Your task to perform on an android device: change keyboard looks Image 0: 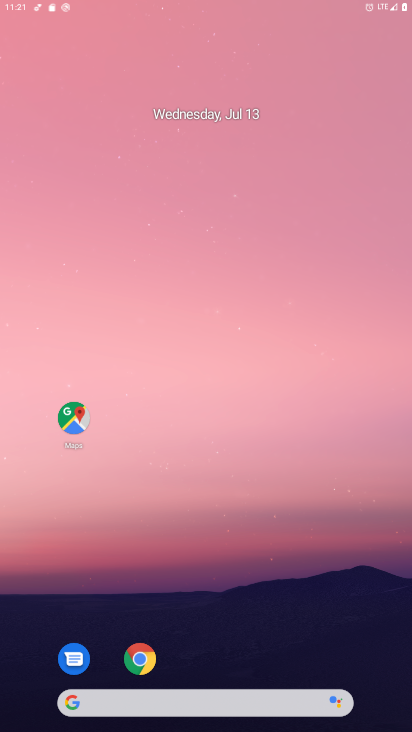
Step 0: press home button
Your task to perform on an android device: change keyboard looks Image 1: 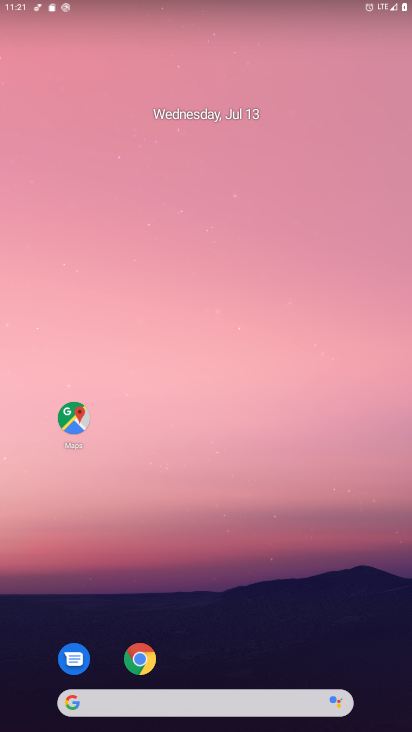
Step 1: drag from (227, 669) to (257, 1)
Your task to perform on an android device: change keyboard looks Image 2: 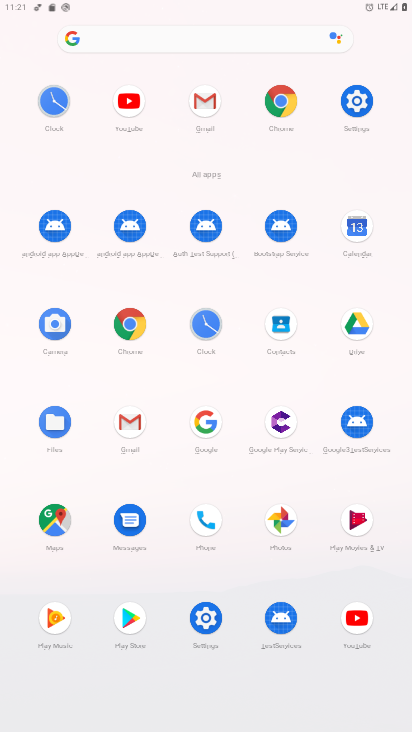
Step 2: click (357, 98)
Your task to perform on an android device: change keyboard looks Image 3: 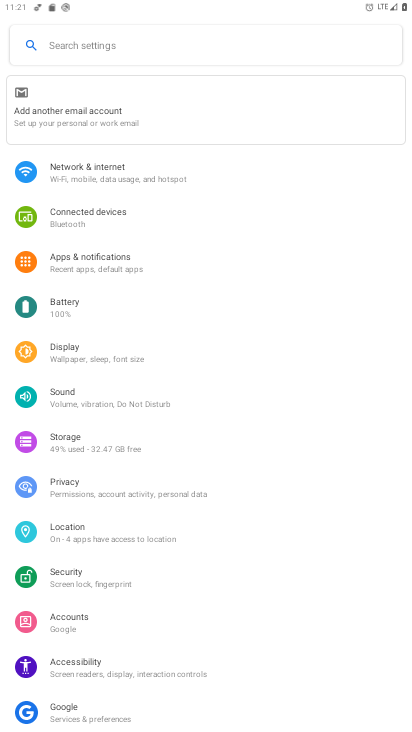
Step 3: drag from (119, 676) to (142, 96)
Your task to perform on an android device: change keyboard looks Image 4: 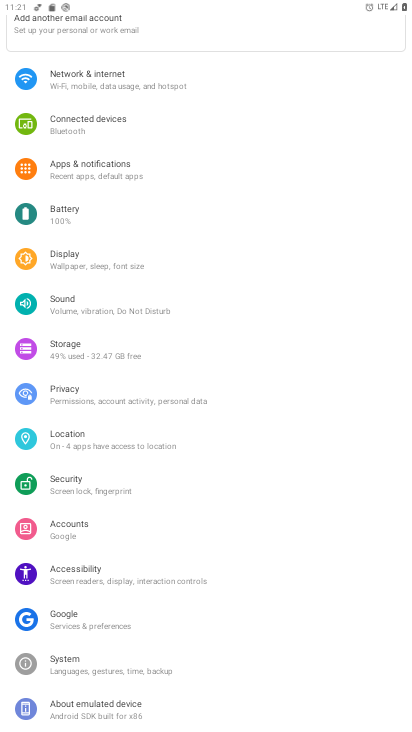
Step 4: click (96, 656)
Your task to perform on an android device: change keyboard looks Image 5: 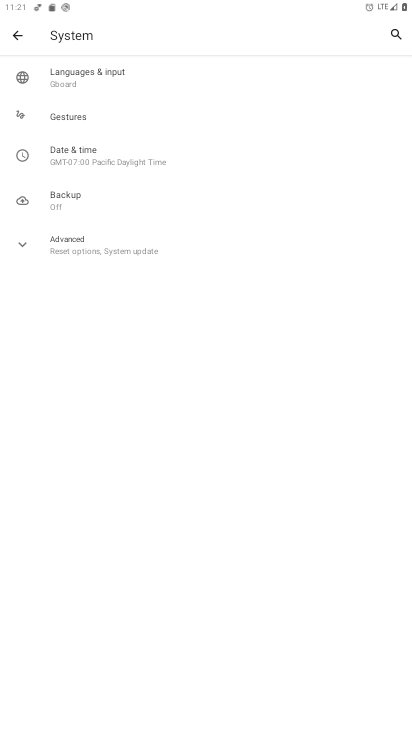
Step 5: click (21, 240)
Your task to perform on an android device: change keyboard looks Image 6: 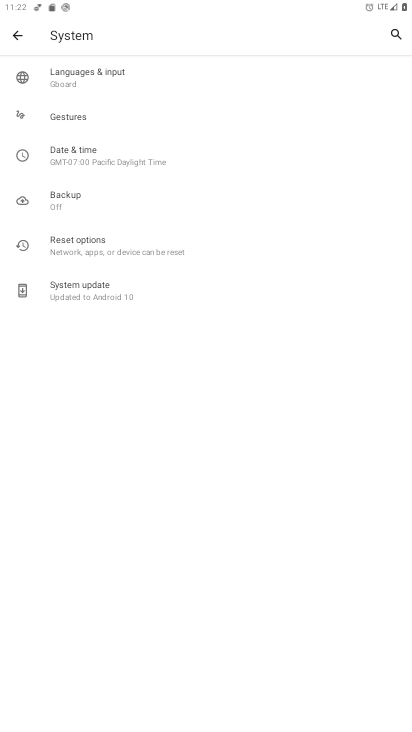
Step 6: click (92, 81)
Your task to perform on an android device: change keyboard looks Image 7: 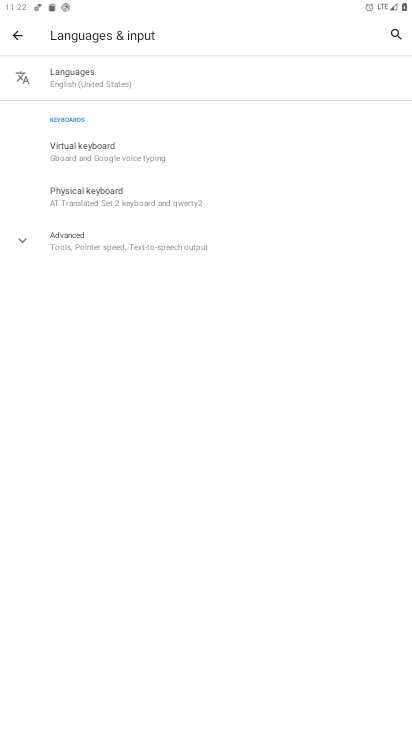
Step 7: click (24, 233)
Your task to perform on an android device: change keyboard looks Image 8: 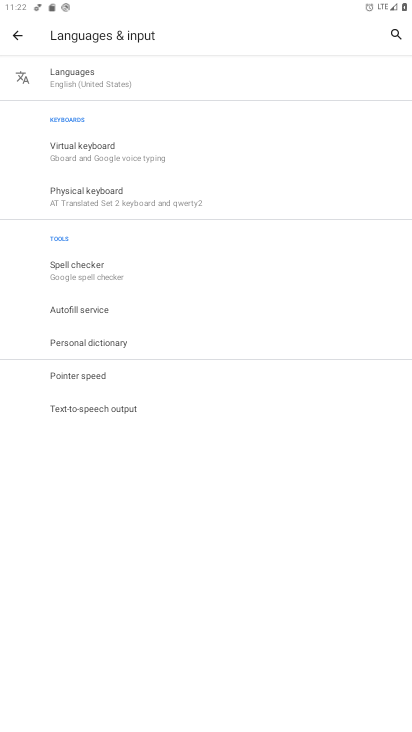
Step 8: click (106, 144)
Your task to perform on an android device: change keyboard looks Image 9: 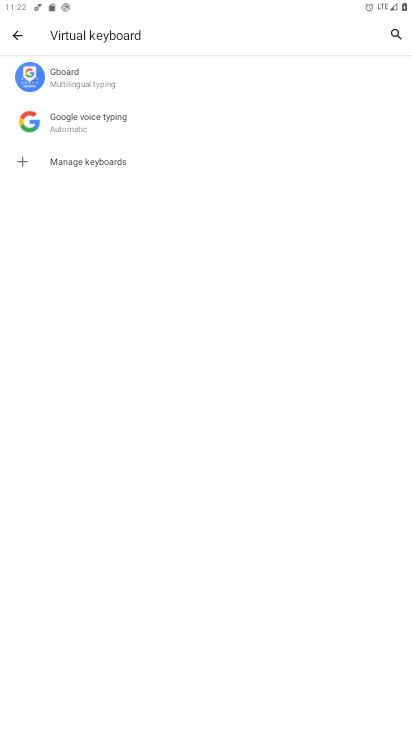
Step 9: click (81, 75)
Your task to perform on an android device: change keyboard looks Image 10: 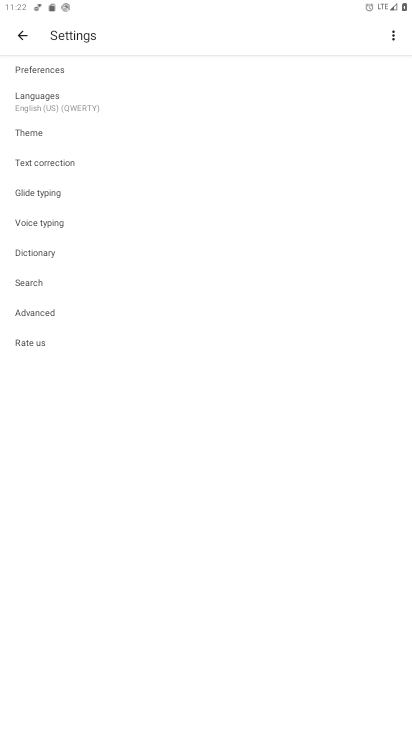
Step 10: click (48, 135)
Your task to perform on an android device: change keyboard looks Image 11: 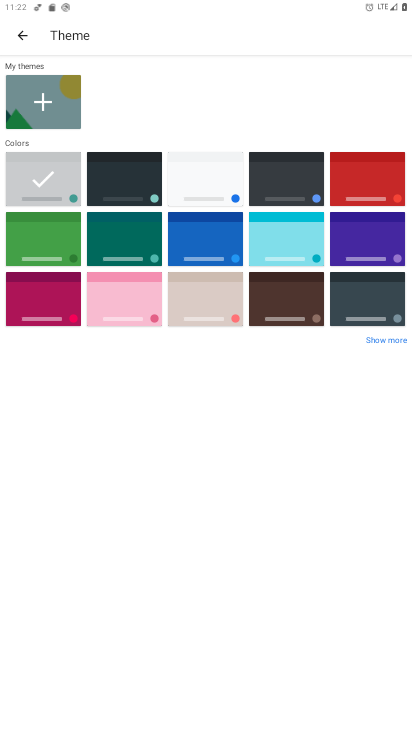
Step 11: click (217, 240)
Your task to perform on an android device: change keyboard looks Image 12: 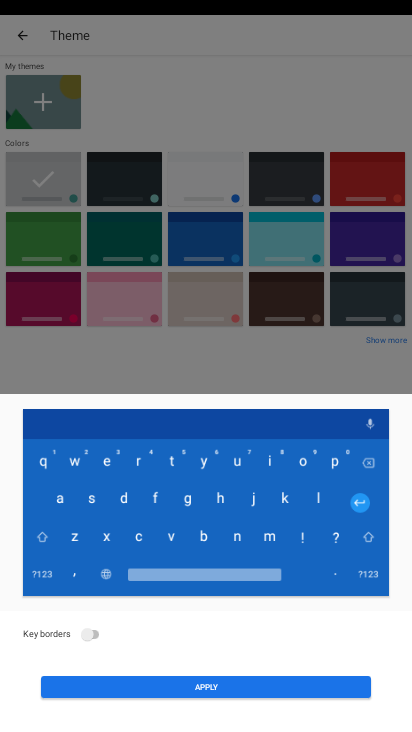
Step 12: click (251, 682)
Your task to perform on an android device: change keyboard looks Image 13: 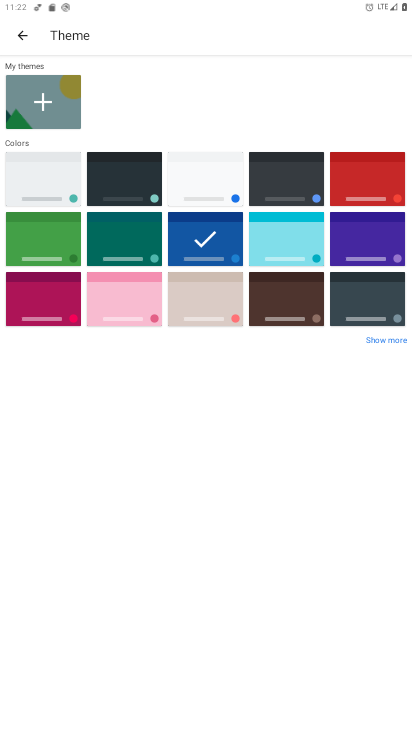
Step 13: task complete